Your task to perform on an android device: turn off notifications in google photos Image 0: 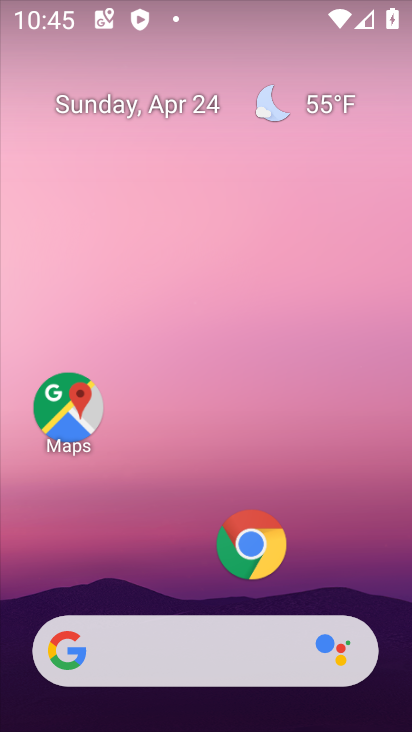
Step 0: drag from (158, 570) to (131, 215)
Your task to perform on an android device: turn off notifications in google photos Image 1: 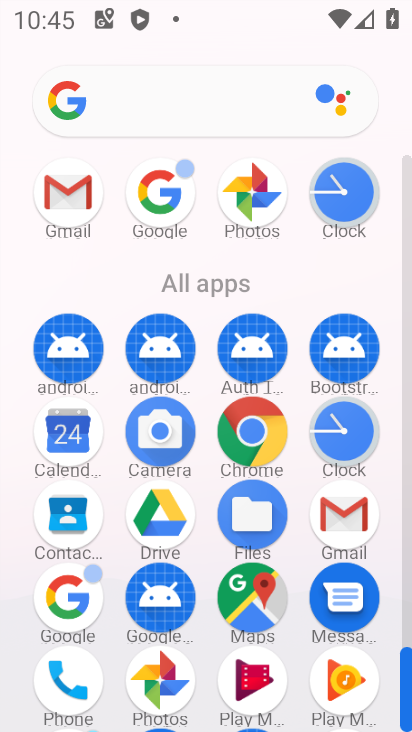
Step 1: click (276, 201)
Your task to perform on an android device: turn off notifications in google photos Image 2: 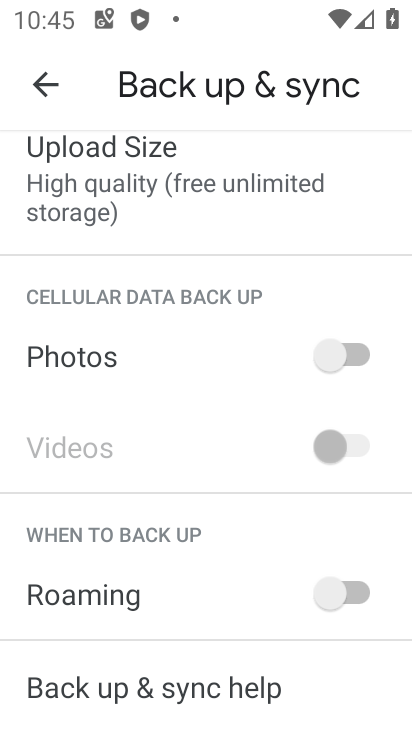
Step 2: drag from (199, 585) to (209, 301)
Your task to perform on an android device: turn off notifications in google photos Image 3: 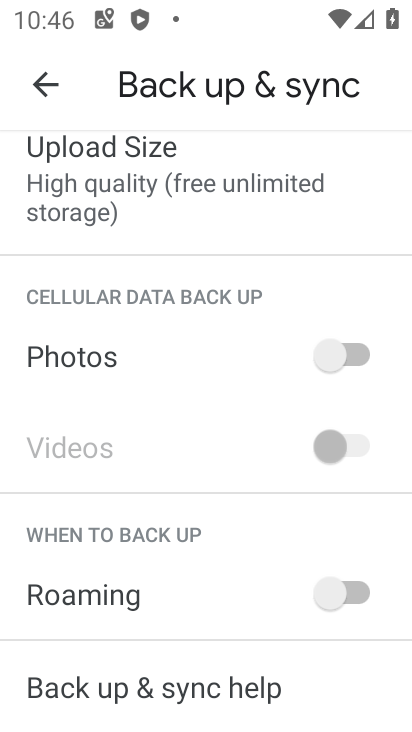
Step 3: drag from (190, 238) to (190, 632)
Your task to perform on an android device: turn off notifications in google photos Image 4: 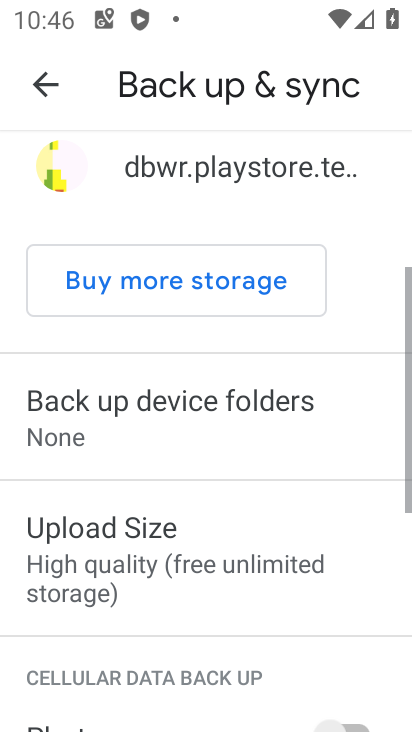
Step 4: click (42, 86)
Your task to perform on an android device: turn off notifications in google photos Image 5: 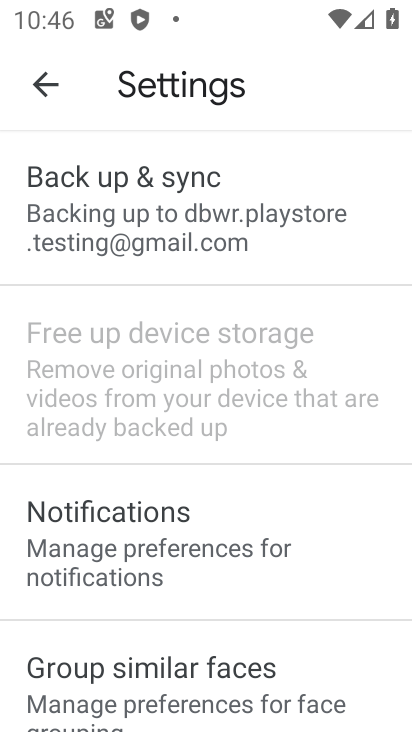
Step 5: click (116, 520)
Your task to perform on an android device: turn off notifications in google photos Image 6: 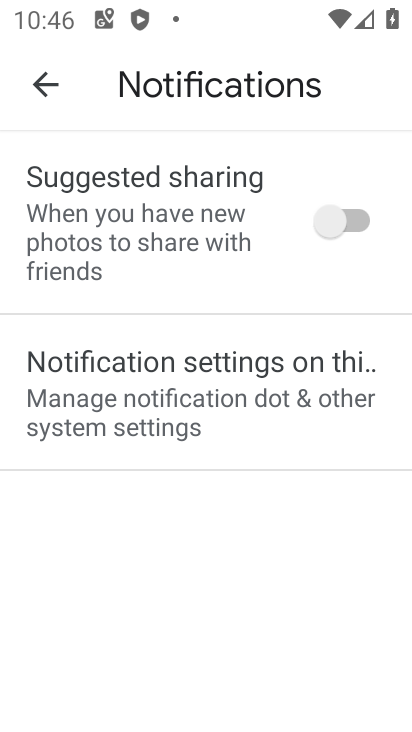
Step 6: click (189, 428)
Your task to perform on an android device: turn off notifications in google photos Image 7: 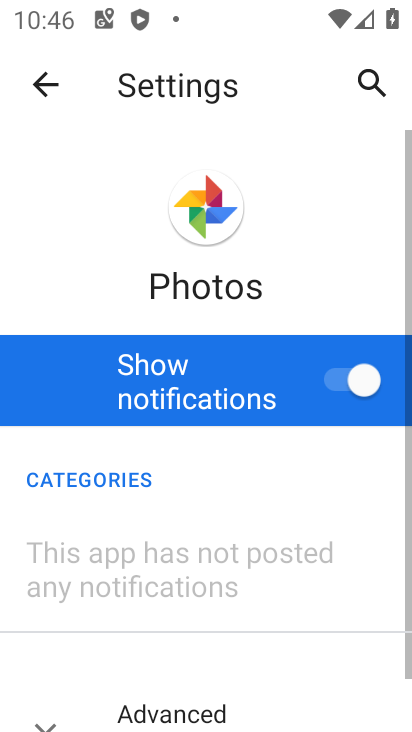
Step 7: click (329, 373)
Your task to perform on an android device: turn off notifications in google photos Image 8: 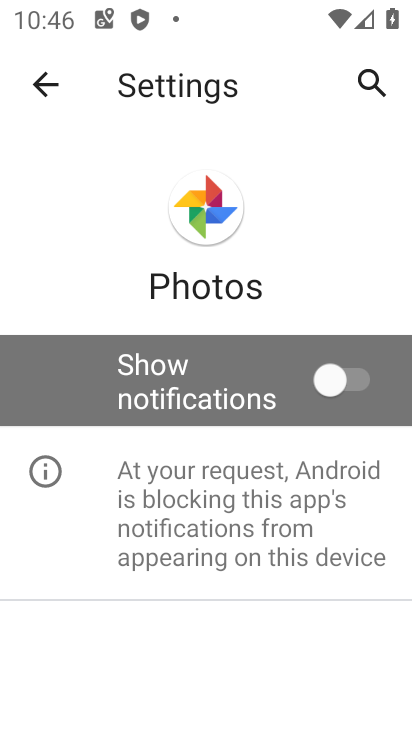
Step 8: task complete